Your task to perform on an android device: Open settings Image 0: 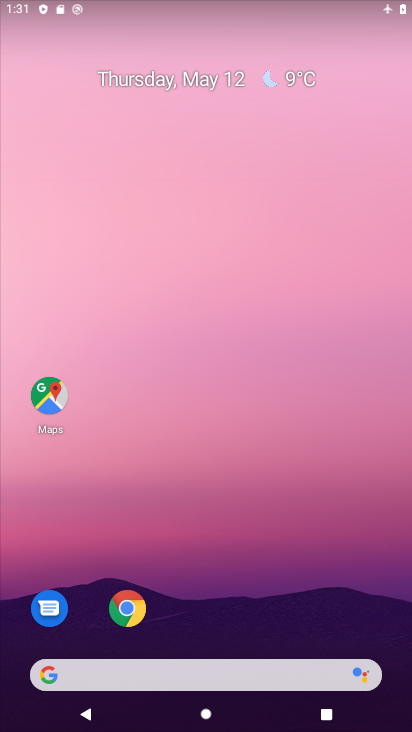
Step 0: drag from (187, 619) to (172, 349)
Your task to perform on an android device: Open settings Image 1: 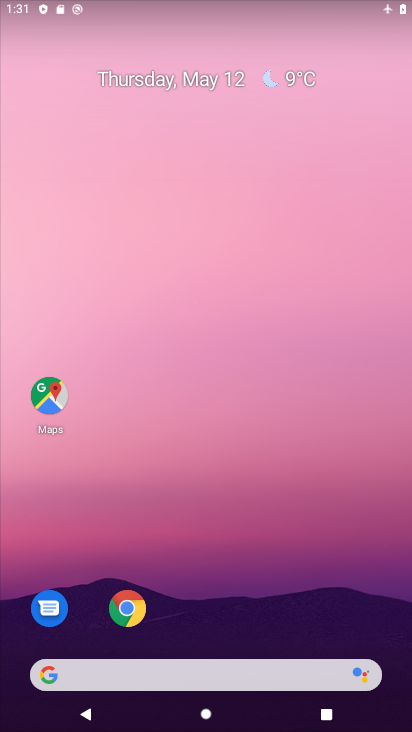
Step 1: drag from (245, 636) to (212, 226)
Your task to perform on an android device: Open settings Image 2: 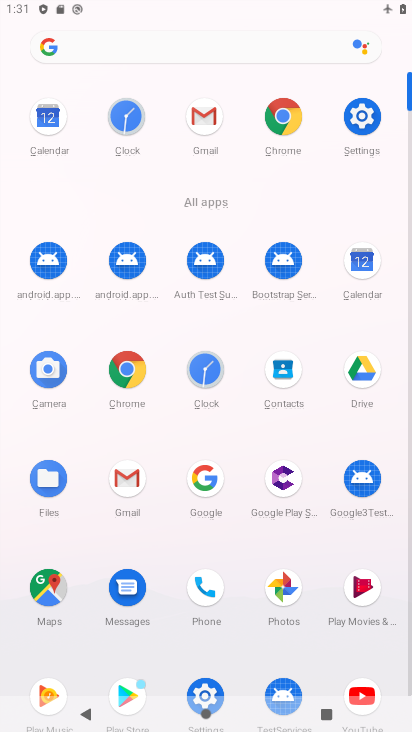
Step 2: click (363, 130)
Your task to perform on an android device: Open settings Image 3: 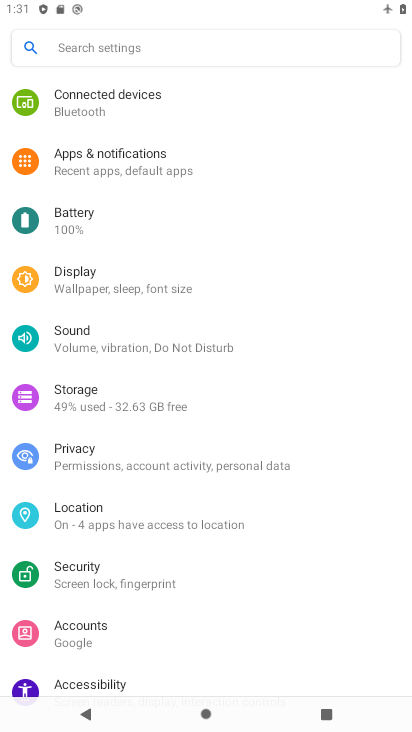
Step 3: task complete